Your task to perform on an android device: Open Yahoo.com Image 0: 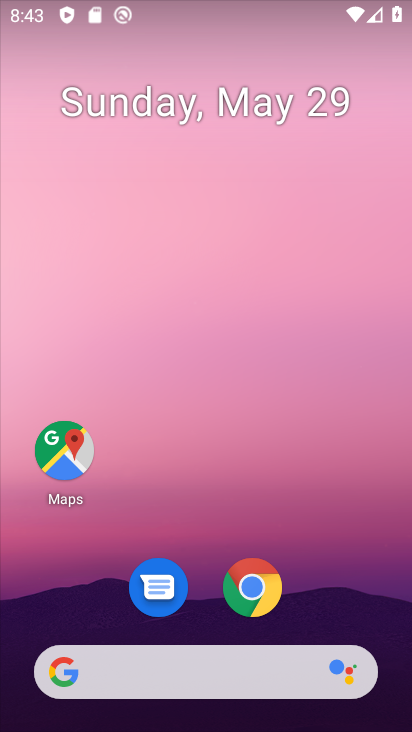
Step 0: click (263, 593)
Your task to perform on an android device: Open Yahoo.com Image 1: 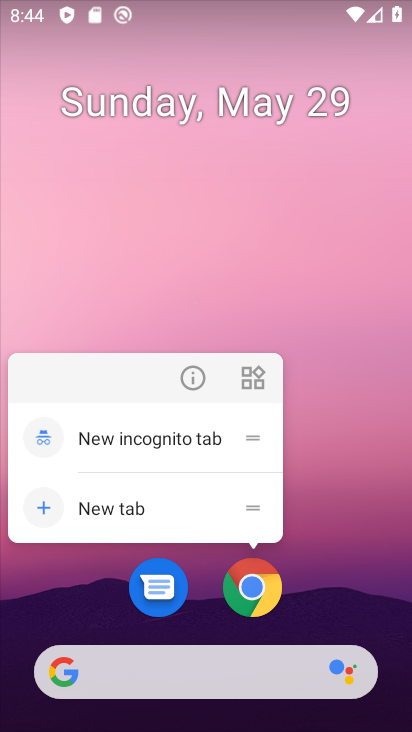
Step 1: click (248, 586)
Your task to perform on an android device: Open Yahoo.com Image 2: 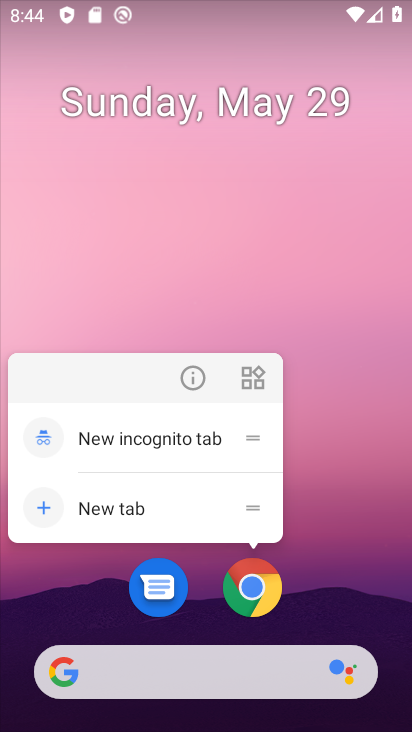
Step 2: click (259, 589)
Your task to perform on an android device: Open Yahoo.com Image 3: 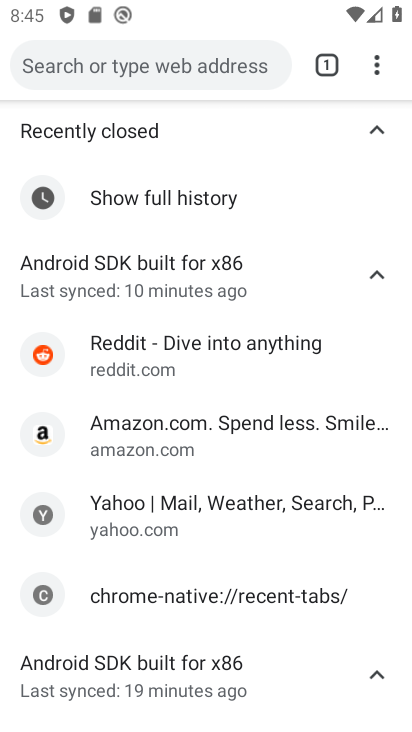
Step 3: click (325, 64)
Your task to perform on an android device: Open Yahoo.com Image 4: 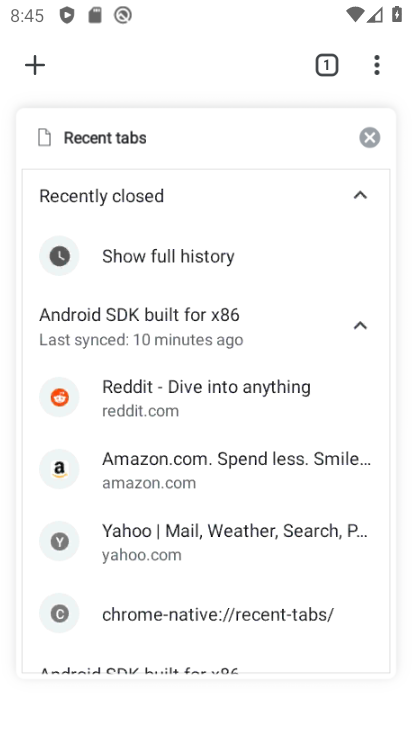
Step 4: click (45, 61)
Your task to perform on an android device: Open Yahoo.com Image 5: 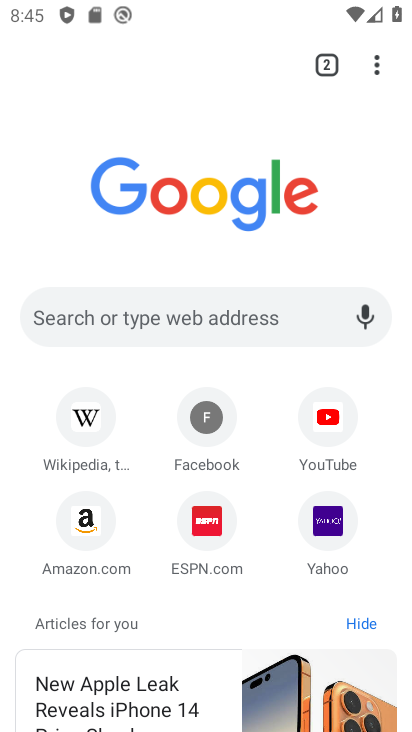
Step 5: click (326, 525)
Your task to perform on an android device: Open Yahoo.com Image 6: 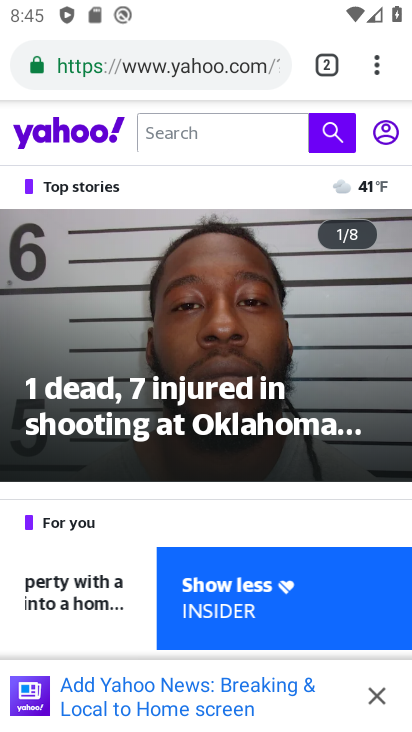
Step 6: task complete